Your task to perform on an android device: Open settings on Google Maps Image 0: 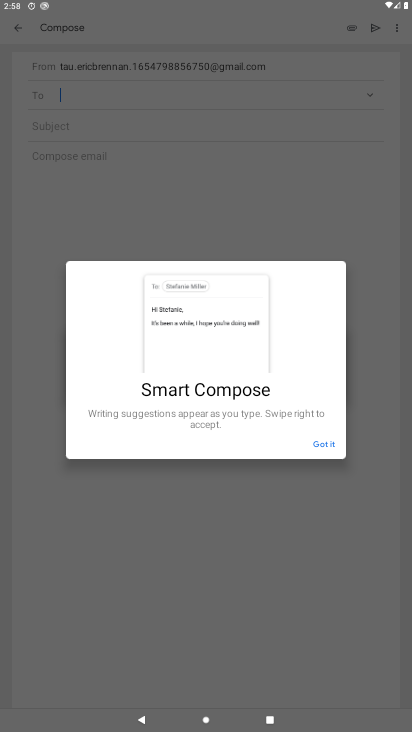
Step 0: press home button
Your task to perform on an android device: Open settings on Google Maps Image 1: 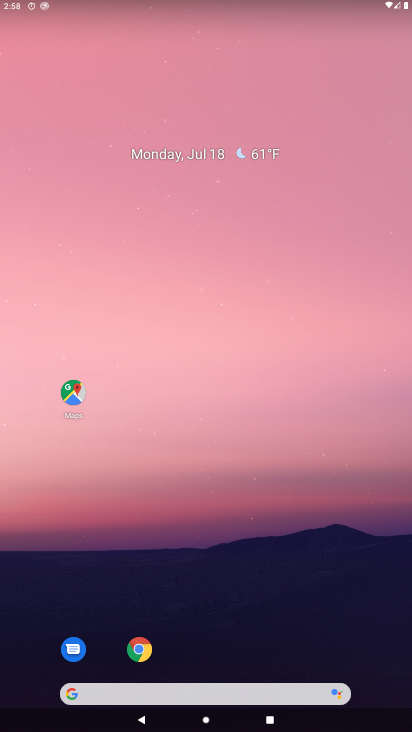
Step 1: click (76, 389)
Your task to perform on an android device: Open settings on Google Maps Image 2: 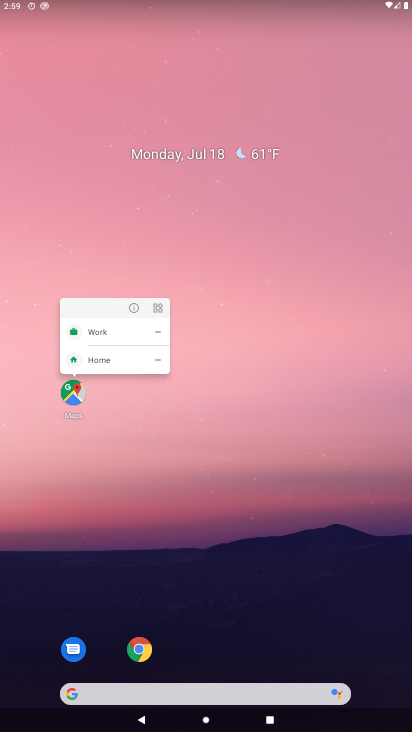
Step 2: click (75, 388)
Your task to perform on an android device: Open settings on Google Maps Image 3: 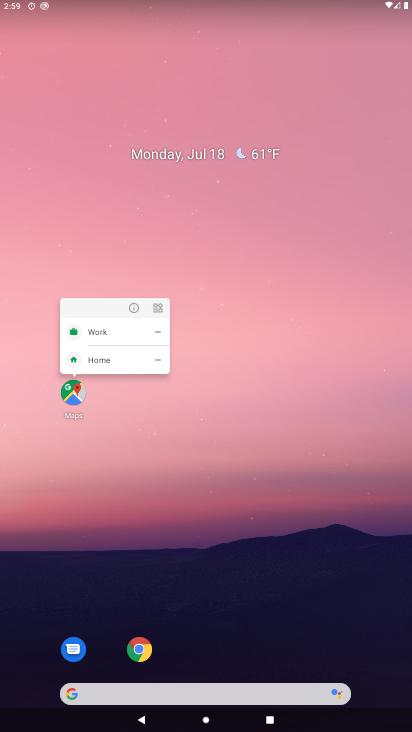
Step 3: click (75, 388)
Your task to perform on an android device: Open settings on Google Maps Image 4: 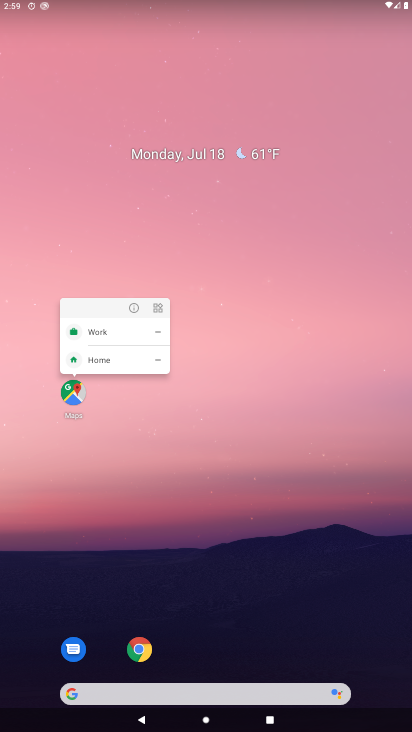
Step 4: click (71, 405)
Your task to perform on an android device: Open settings on Google Maps Image 5: 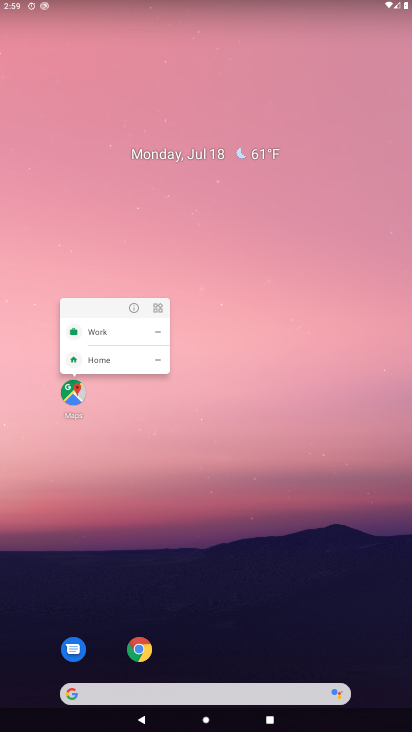
Step 5: click (131, 636)
Your task to perform on an android device: Open settings on Google Maps Image 6: 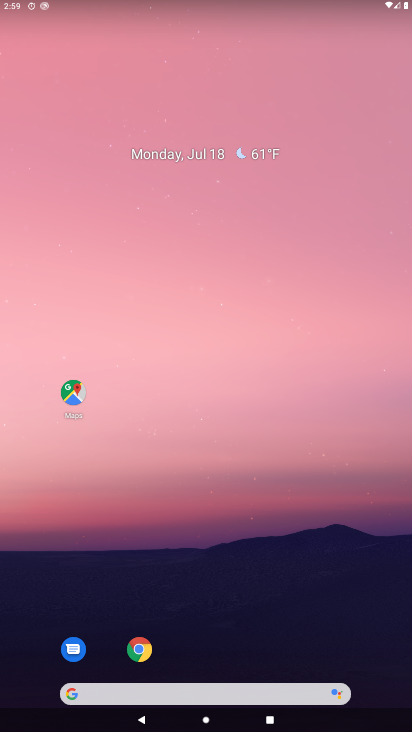
Step 6: click (89, 382)
Your task to perform on an android device: Open settings on Google Maps Image 7: 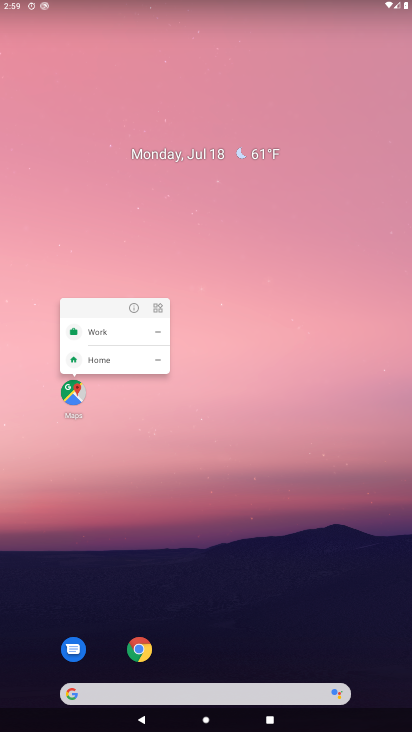
Step 7: task complete